Your task to perform on an android device: toggle improve location accuracy Image 0: 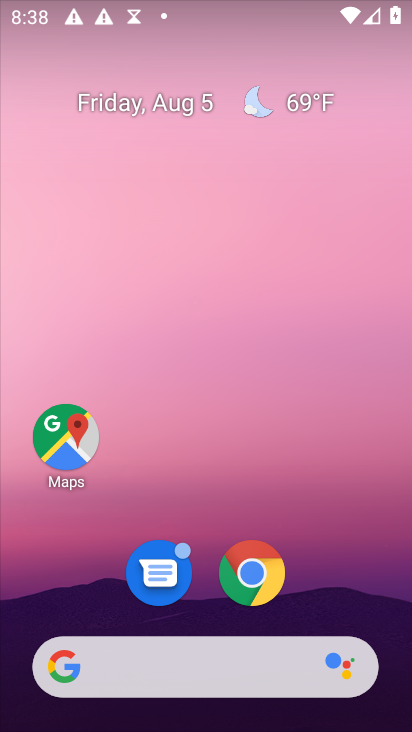
Step 0: drag from (198, 666) to (285, 5)
Your task to perform on an android device: toggle improve location accuracy Image 1: 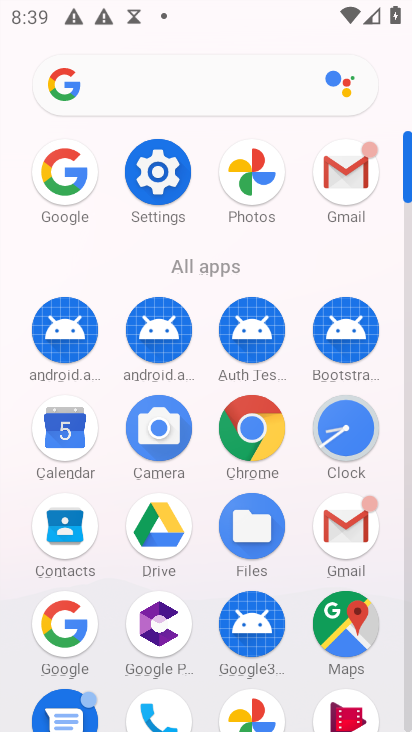
Step 1: click (160, 171)
Your task to perform on an android device: toggle improve location accuracy Image 2: 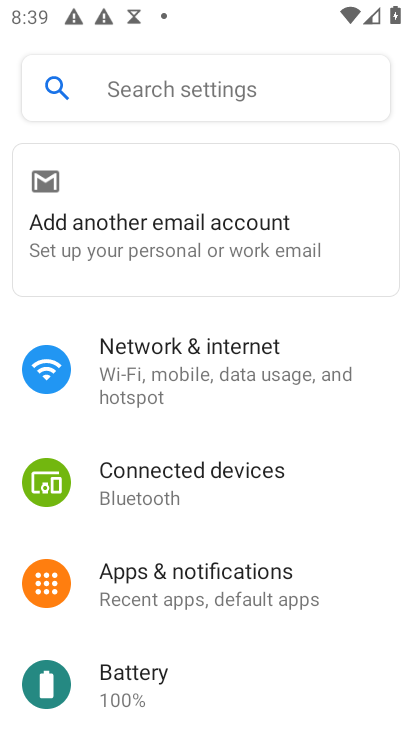
Step 2: drag from (225, 522) to (250, 395)
Your task to perform on an android device: toggle improve location accuracy Image 3: 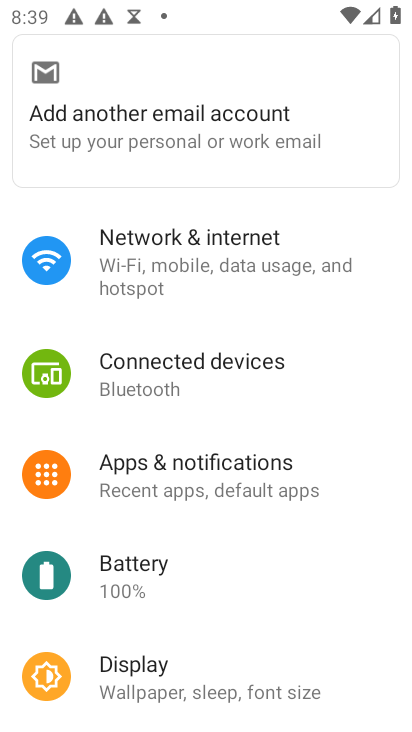
Step 3: drag from (210, 568) to (252, 454)
Your task to perform on an android device: toggle improve location accuracy Image 4: 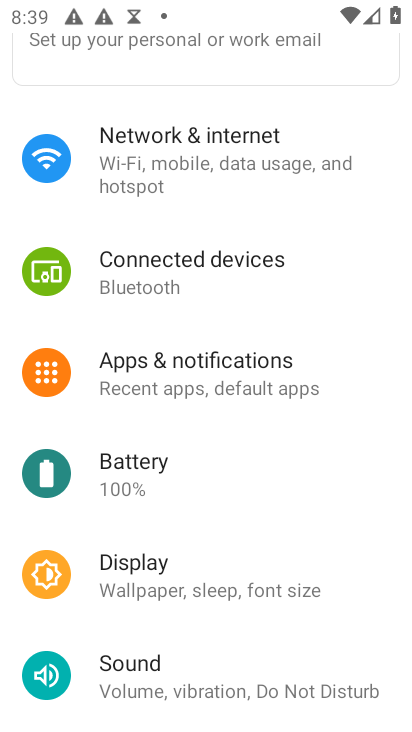
Step 4: drag from (223, 616) to (324, 473)
Your task to perform on an android device: toggle improve location accuracy Image 5: 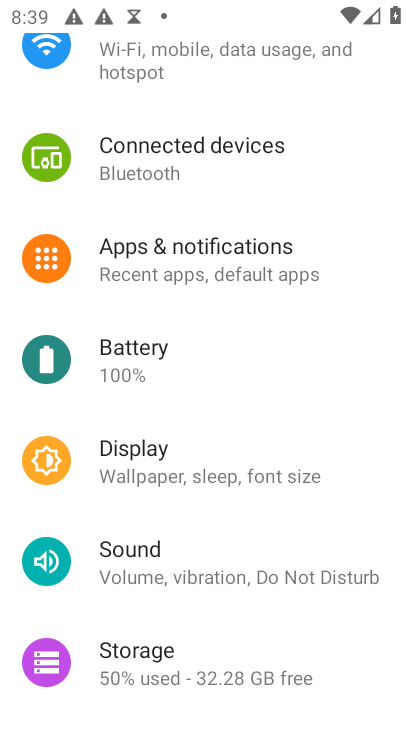
Step 5: drag from (236, 623) to (309, 519)
Your task to perform on an android device: toggle improve location accuracy Image 6: 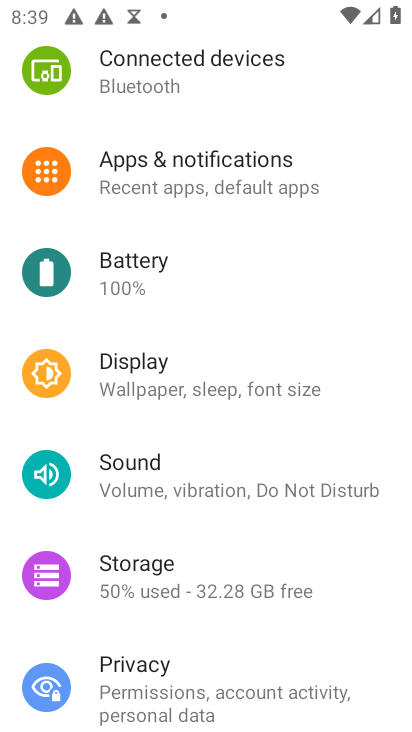
Step 6: drag from (213, 646) to (308, 504)
Your task to perform on an android device: toggle improve location accuracy Image 7: 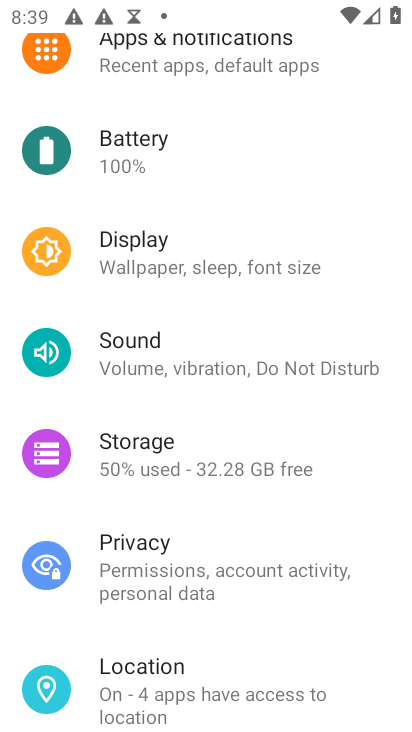
Step 7: drag from (247, 639) to (304, 521)
Your task to perform on an android device: toggle improve location accuracy Image 8: 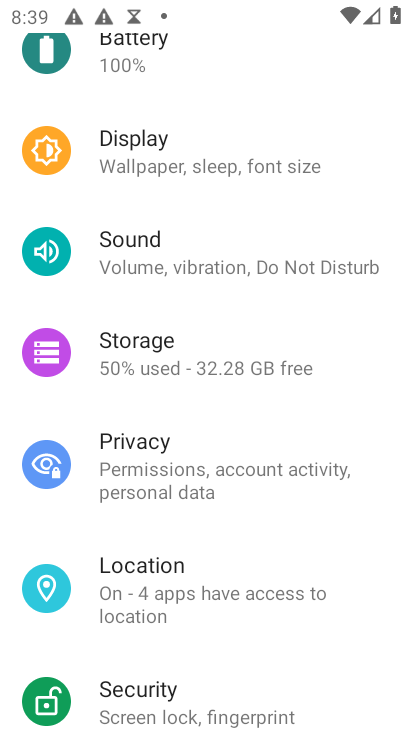
Step 8: click (199, 589)
Your task to perform on an android device: toggle improve location accuracy Image 9: 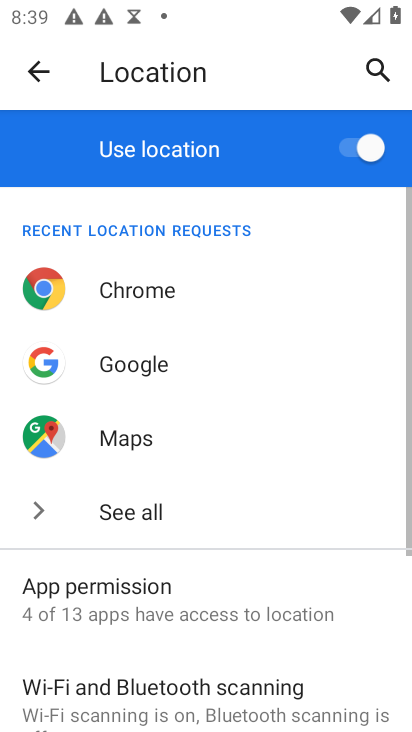
Step 9: drag from (167, 664) to (313, 473)
Your task to perform on an android device: toggle improve location accuracy Image 10: 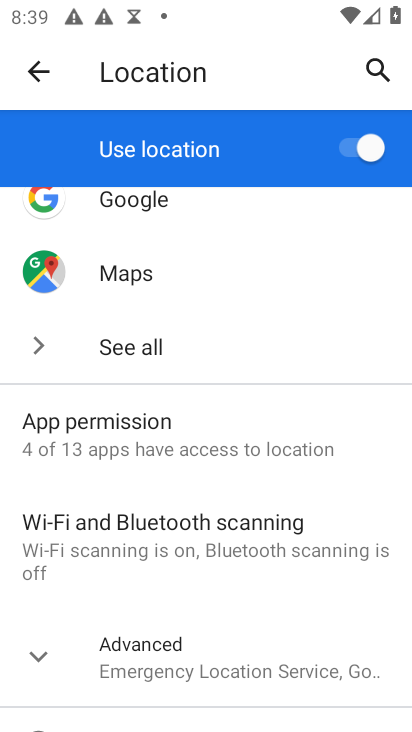
Step 10: click (215, 664)
Your task to perform on an android device: toggle improve location accuracy Image 11: 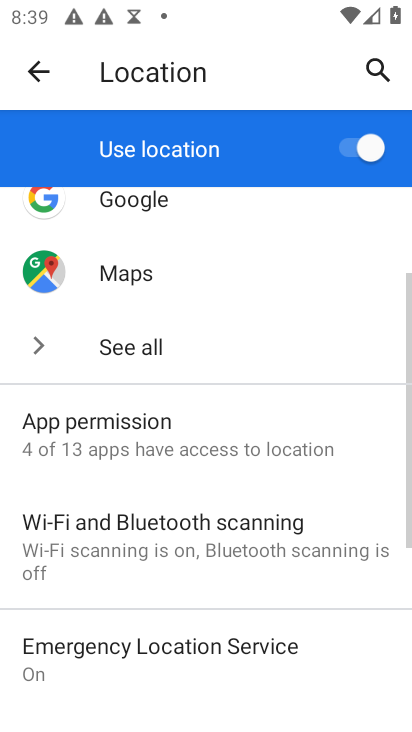
Step 11: drag from (193, 687) to (308, 430)
Your task to perform on an android device: toggle improve location accuracy Image 12: 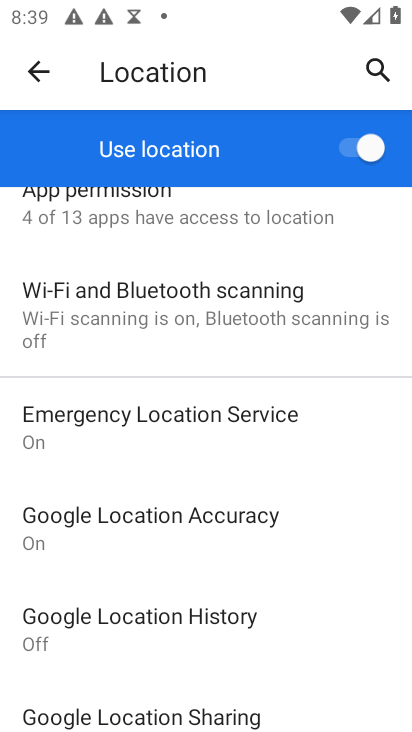
Step 12: click (259, 525)
Your task to perform on an android device: toggle improve location accuracy Image 13: 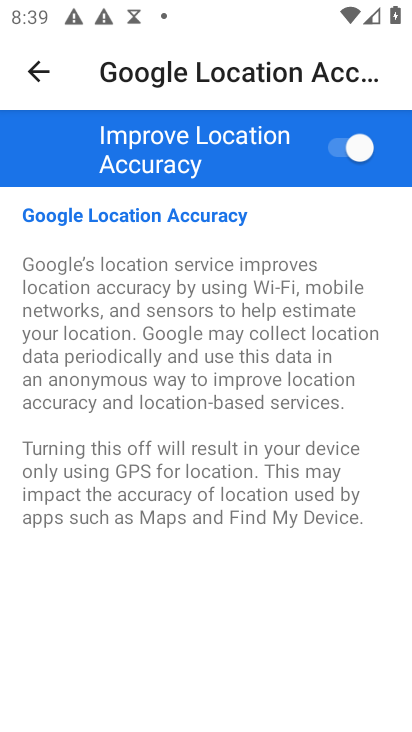
Step 13: click (339, 148)
Your task to perform on an android device: toggle improve location accuracy Image 14: 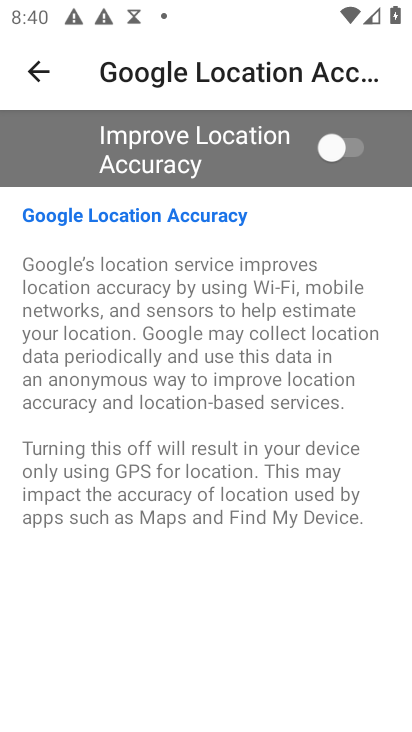
Step 14: task complete